Your task to perform on an android device: see creations saved in the google photos Image 0: 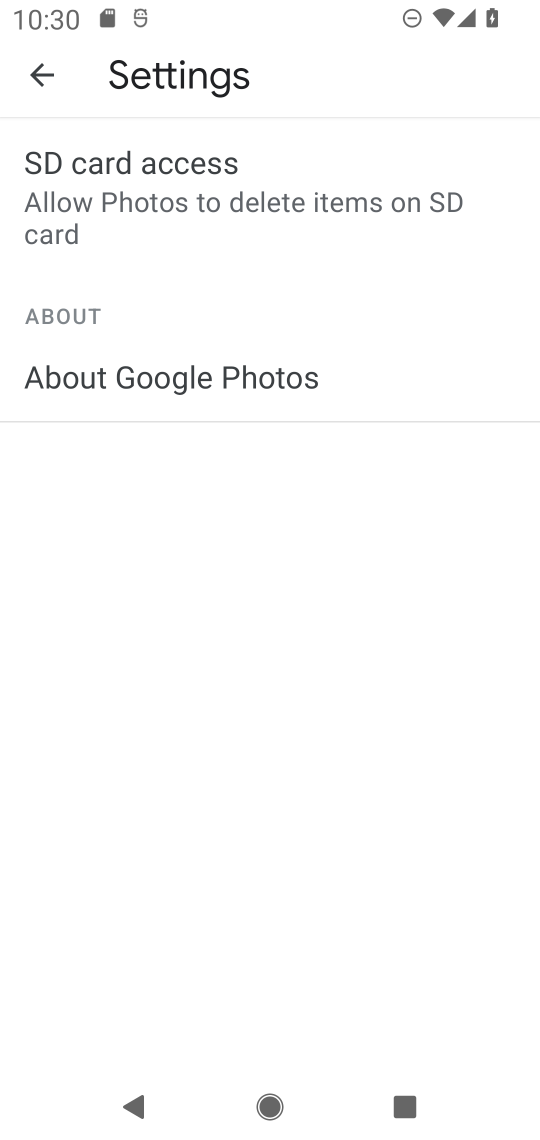
Step 0: press home button
Your task to perform on an android device: see creations saved in the google photos Image 1: 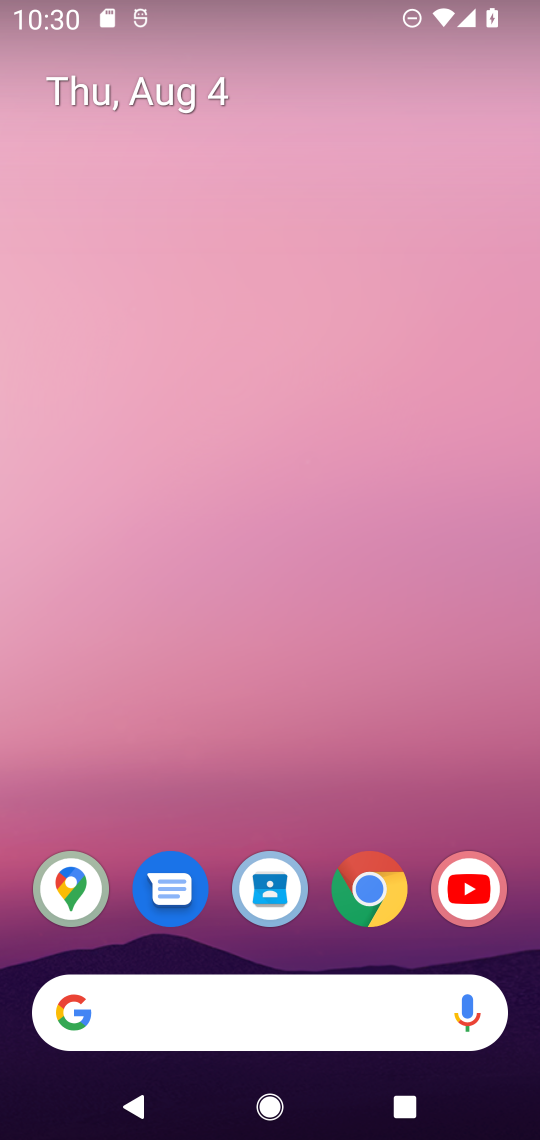
Step 1: drag from (302, 779) to (305, 194)
Your task to perform on an android device: see creations saved in the google photos Image 2: 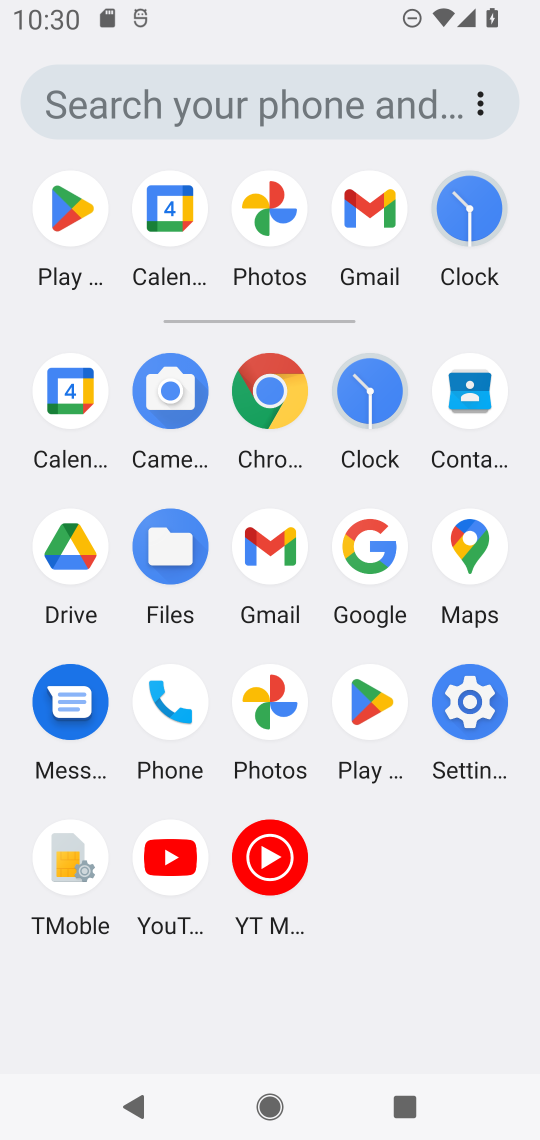
Step 2: click (261, 705)
Your task to perform on an android device: see creations saved in the google photos Image 3: 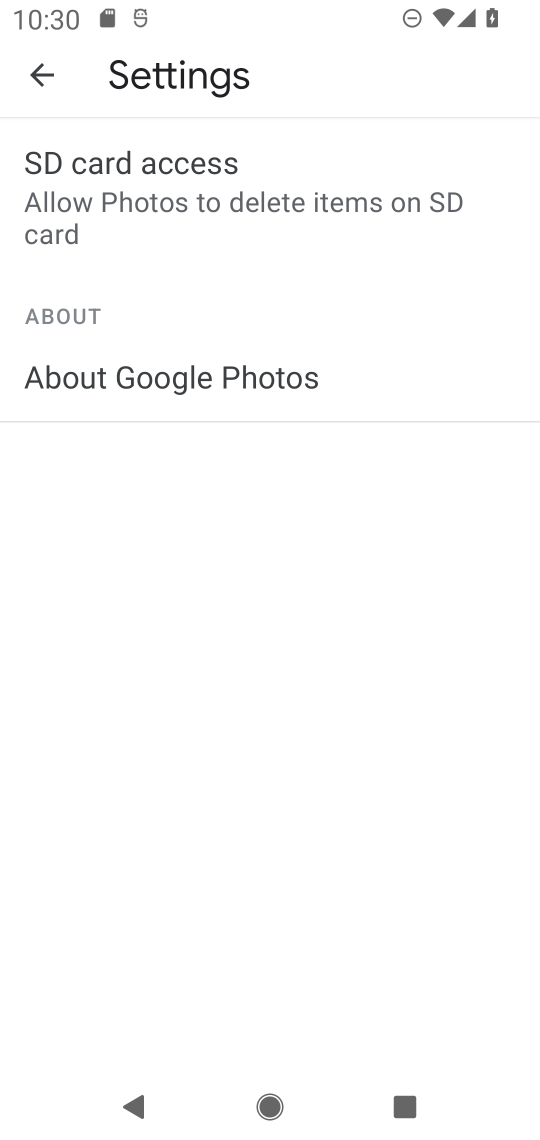
Step 3: press back button
Your task to perform on an android device: see creations saved in the google photos Image 4: 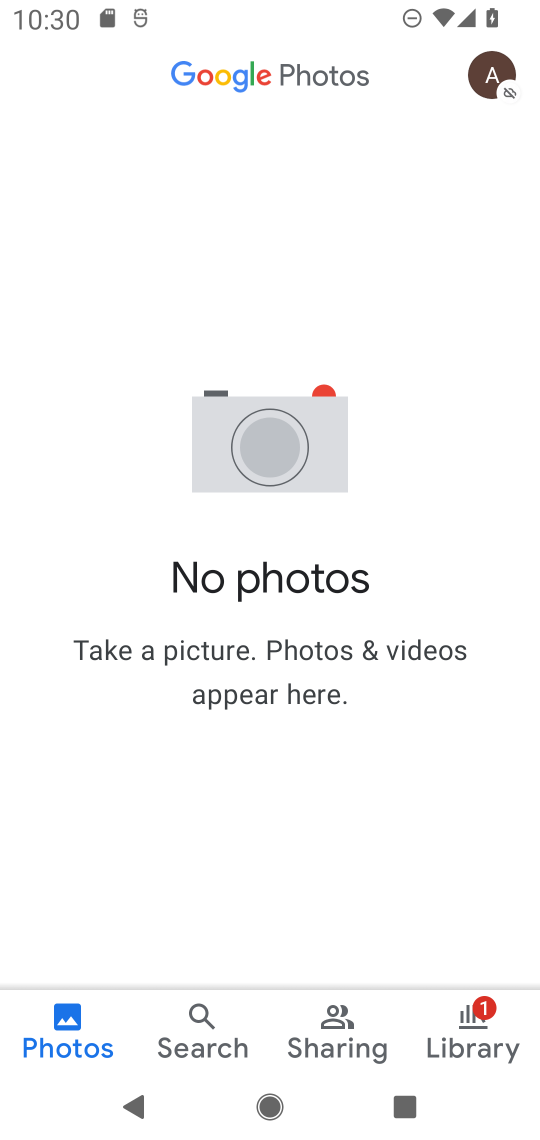
Step 4: click (191, 1020)
Your task to perform on an android device: see creations saved in the google photos Image 5: 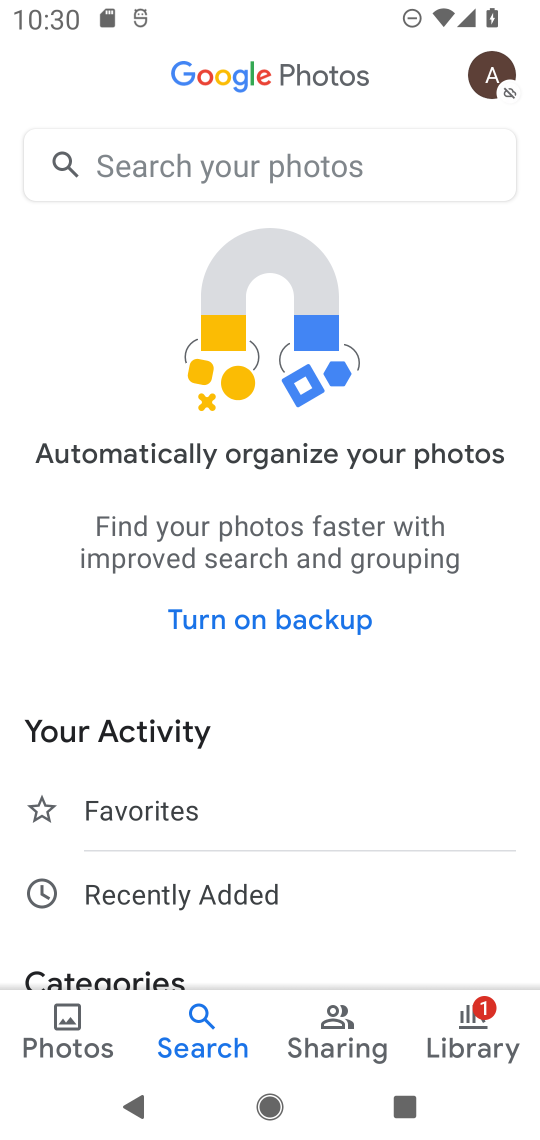
Step 5: drag from (402, 822) to (406, 624)
Your task to perform on an android device: see creations saved in the google photos Image 6: 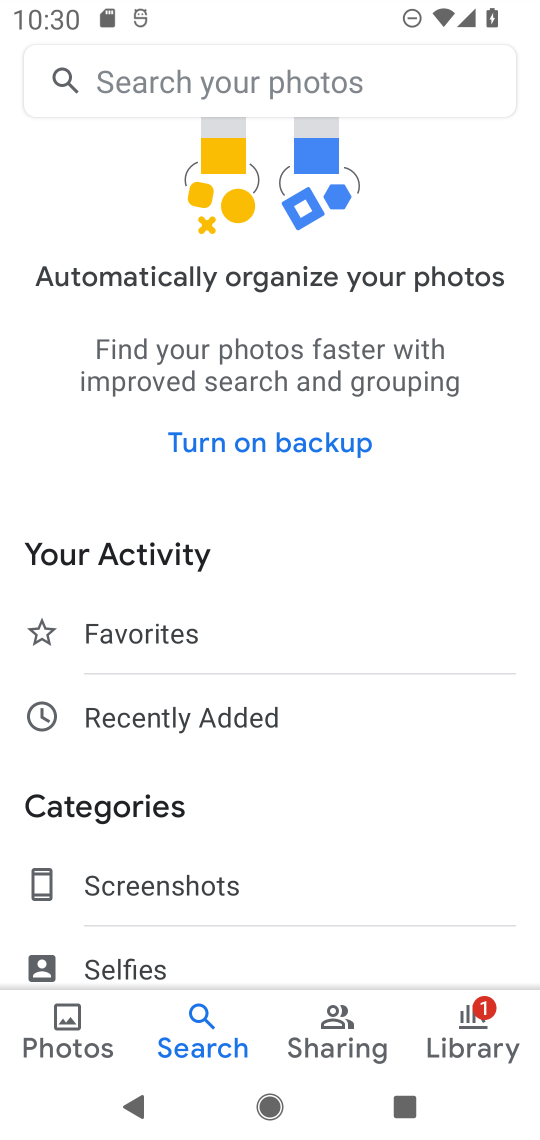
Step 6: drag from (349, 870) to (347, 706)
Your task to perform on an android device: see creations saved in the google photos Image 7: 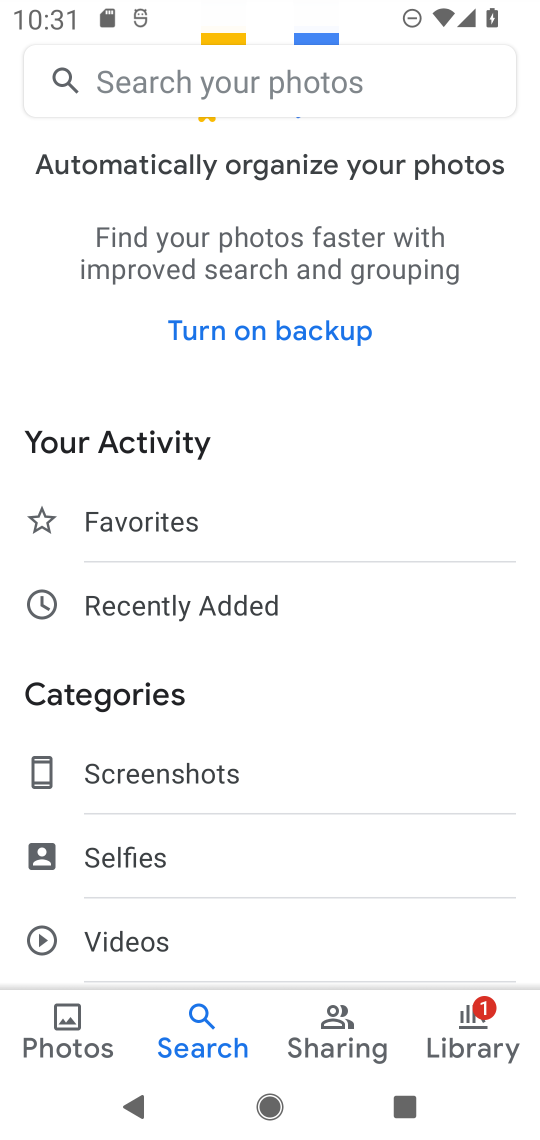
Step 7: drag from (347, 868) to (344, 665)
Your task to perform on an android device: see creations saved in the google photos Image 8: 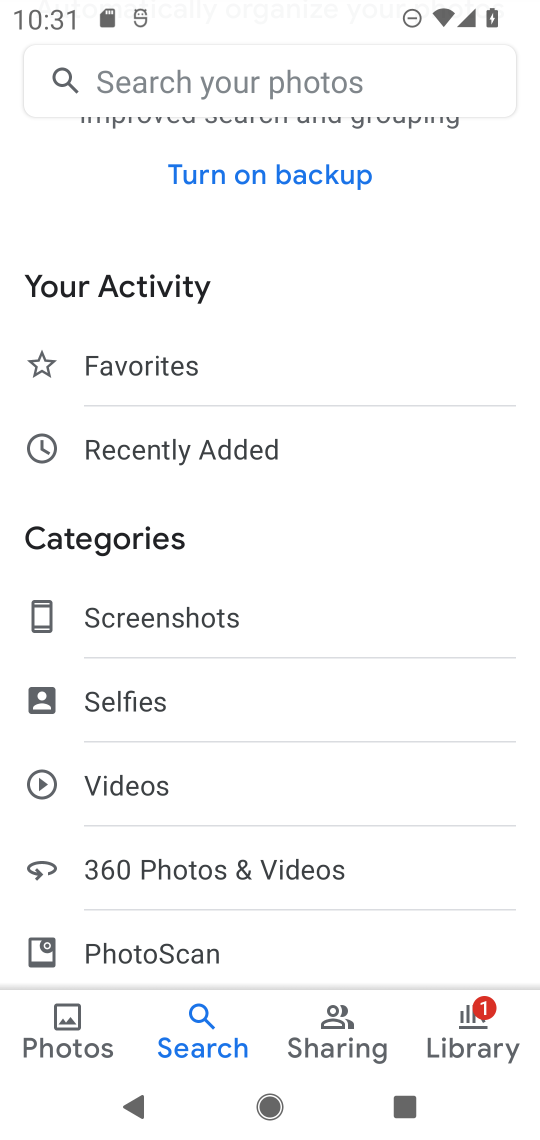
Step 8: drag from (340, 809) to (357, 564)
Your task to perform on an android device: see creations saved in the google photos Image 9: 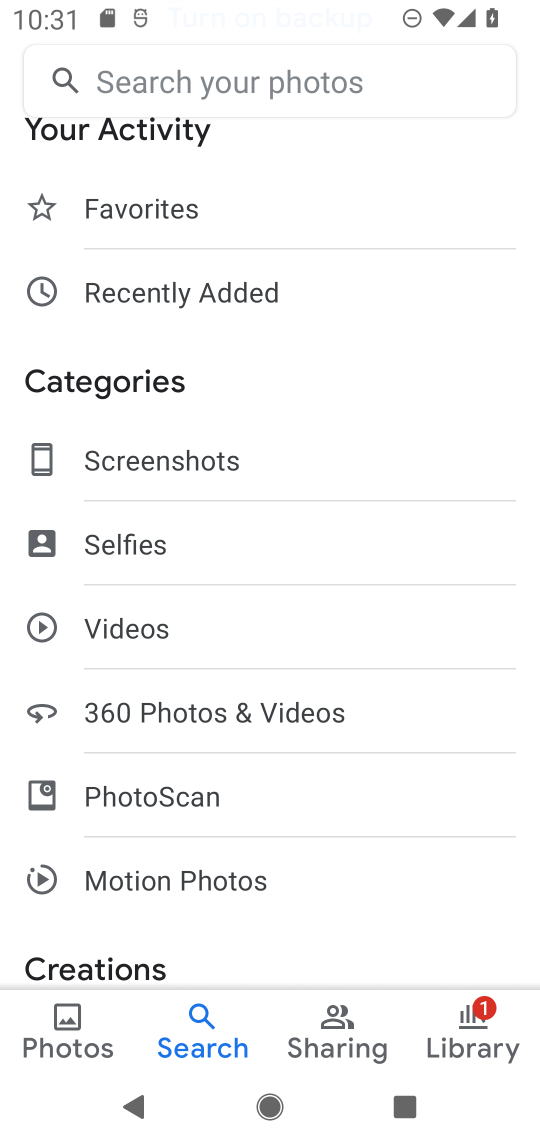
Step 9: drag from (374, 826) to (388, 670)
Your task to perform on an android device: see creations saved in the google photos Image 10: 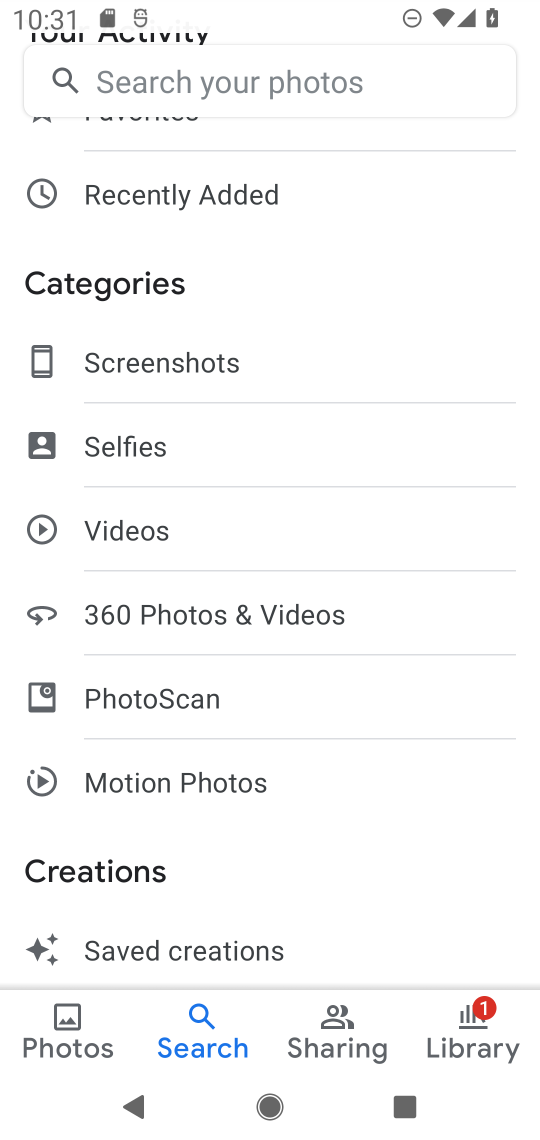
Step 10: drag from (326, 875) to (329, 682)
Your task to perform on an android device: see creations saved in the google photos Image 11: 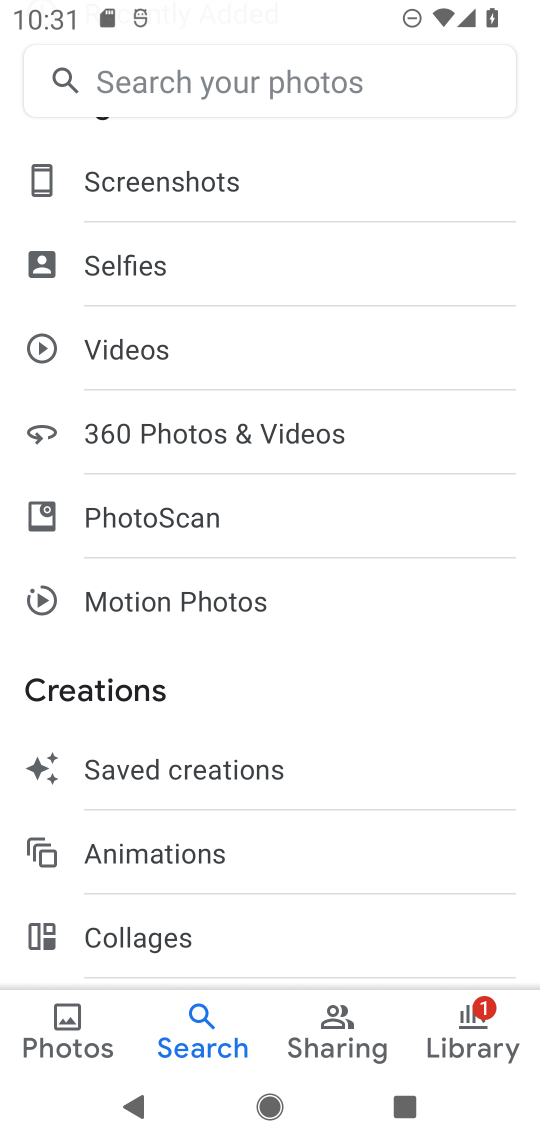
Step 11: click (320, 761)
Your task to perform on an android device: see creations saved in the google photos Image 12: 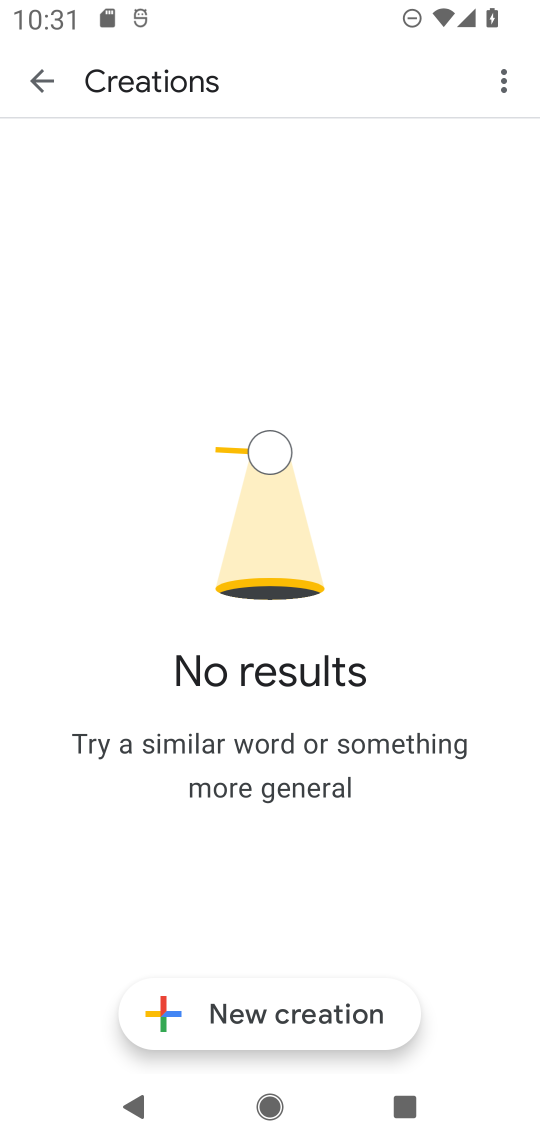
Step 12: task complete